Your task to perform on an android device: delete location history Image 0: 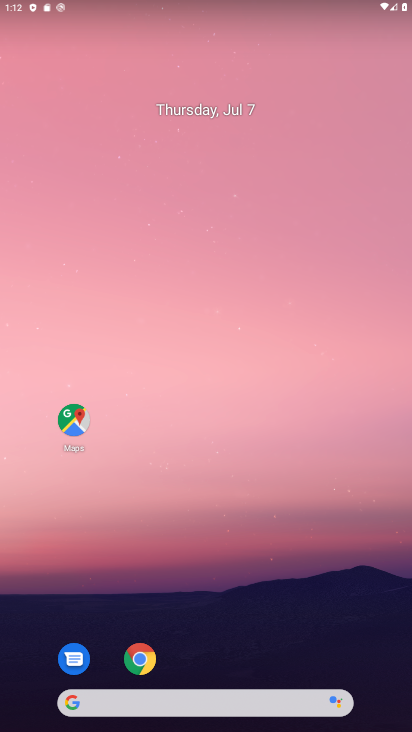
Step 0: press home button
Your task to perform on an android device: delete location history Image 1: 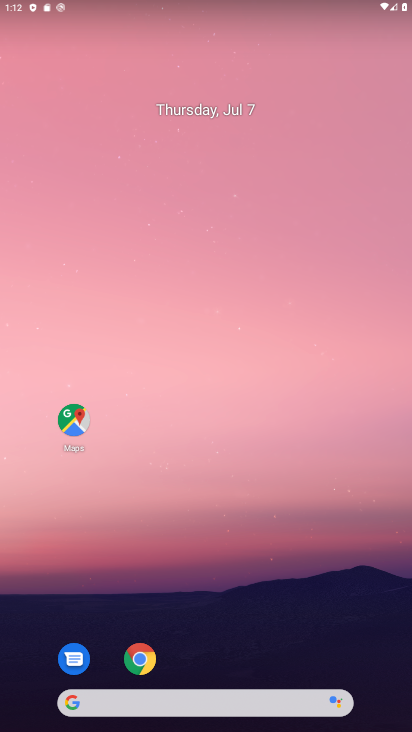
Step 1: press home button
Your task to perform on an android device: delete location history Image 2: 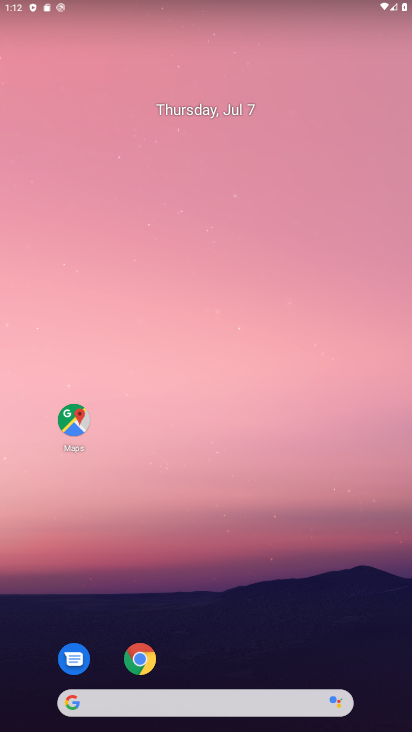
Step 2: drag from (217, 651) to (220, 34)
Your task to perform on an android device: delete location history Image 3: 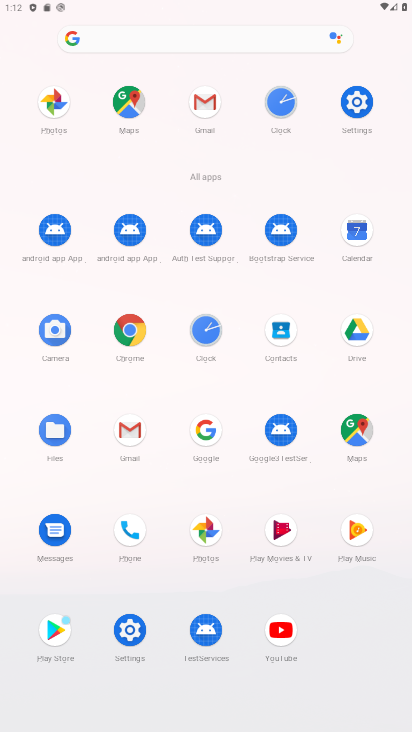
Step 3: click (350, 426)
Your task to perform on an android device: delete location history Image 4: 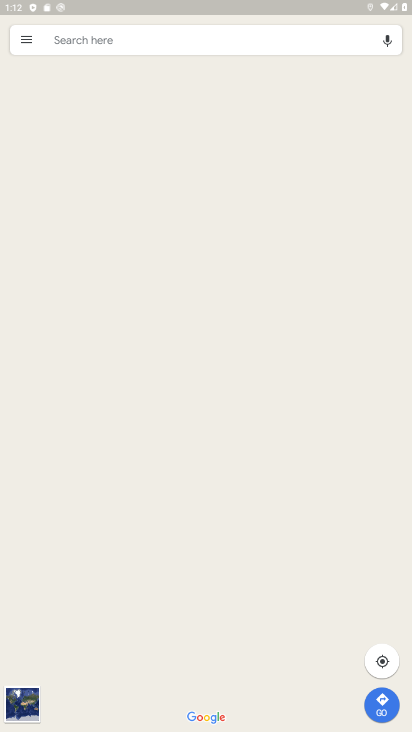
Step 4: click (28, 40)
Your task to perform on an android device: delete location history Image 5: 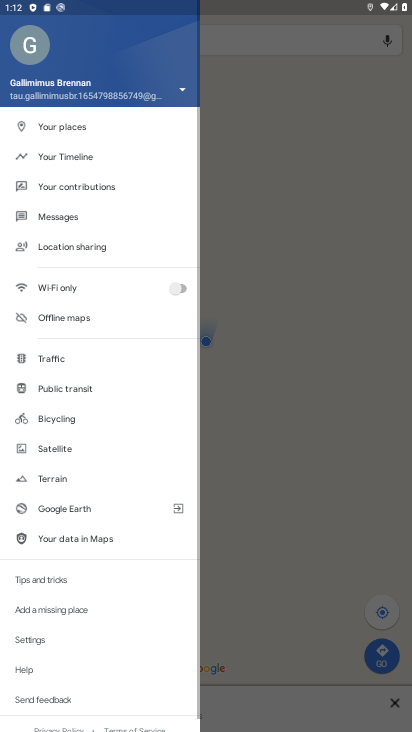
Step 5: click (77, 160)
Your task to perform on an android device: delete location history Image 6: 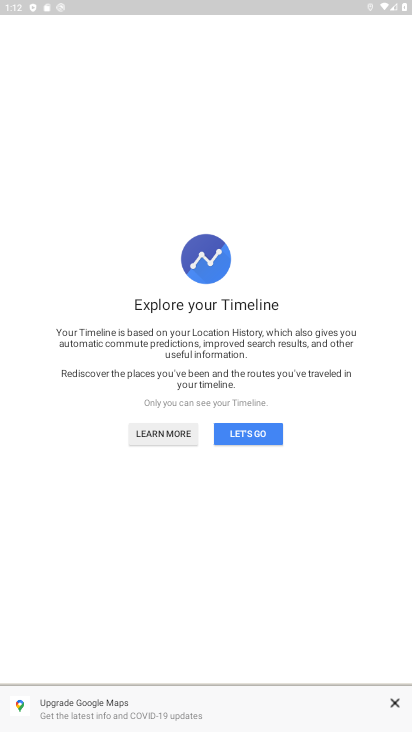
Step 6: click (249, 436)
Your task to perform on an android device: delete location history Image 7: 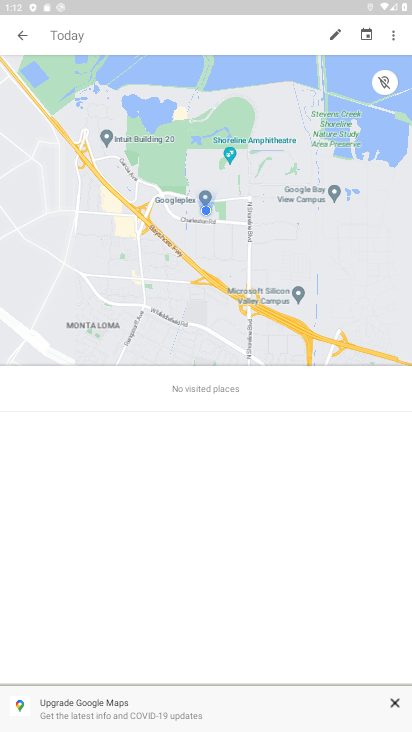
Step 7: click (391, 37)
Your task to perform on an android device: delete location history Image 8: 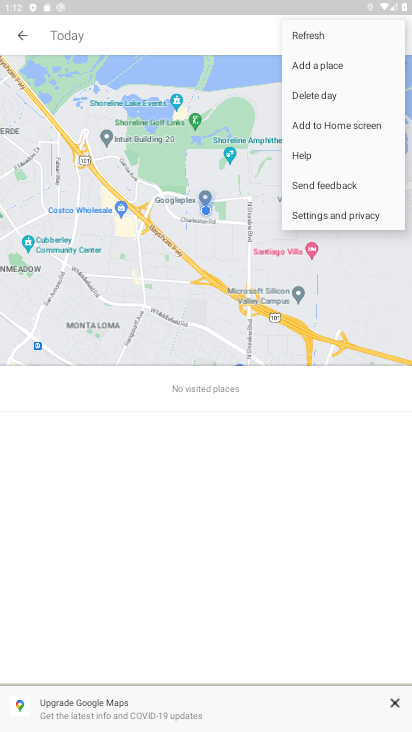
Step 8: click (327, 219)
Your task to perform on an android device: delete location history Image 9: 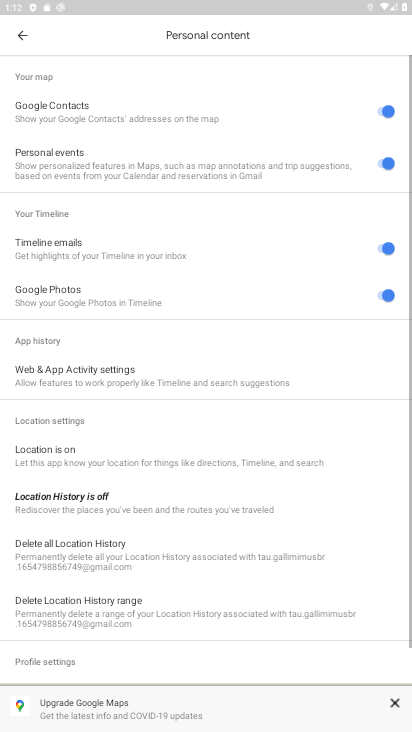
Step 9: click (118, 552)
Your task to perform on an android device: delete location history Image 10: 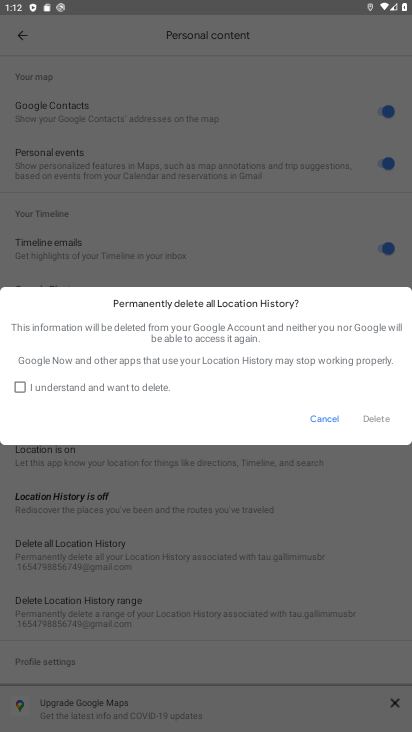
Step 10: click (21, 385)
Your task to perform on an android device: delete location history Image 11: 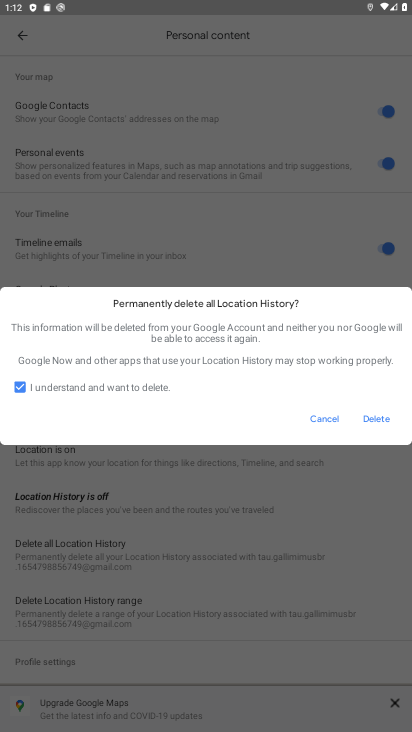
Step 11: click (375, 417)
Your task to perform on an android device: delete location history Image 12: 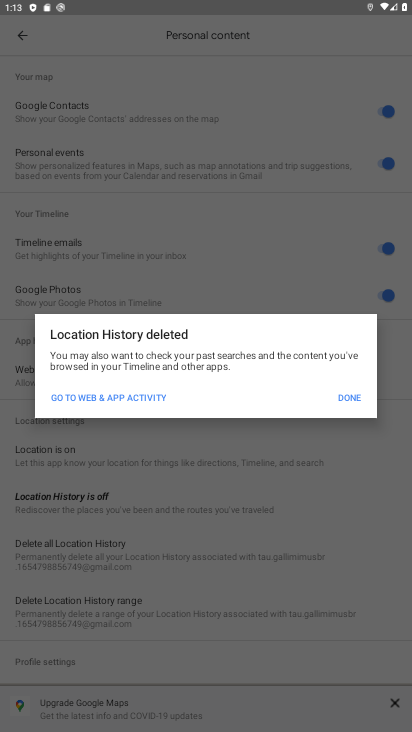
Step 12: task complete